Your task to perform on an android device: turn smart compose on in the gmail app Image 0: 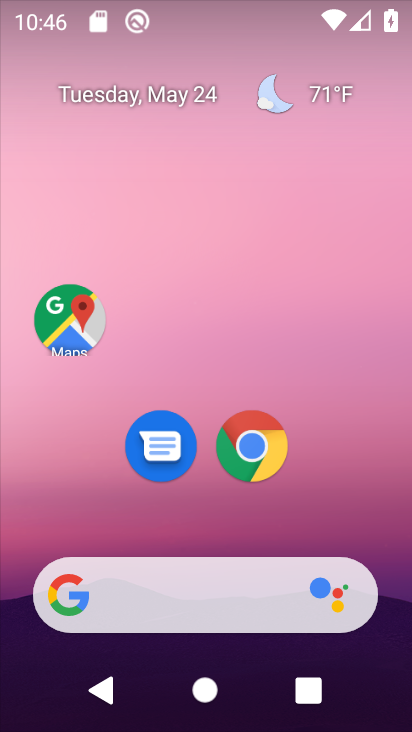
Step 0: drag from (240, 529) to (218, 165)
Your task to perform on an android device: turn smart compose on in the gmail app Image 1: 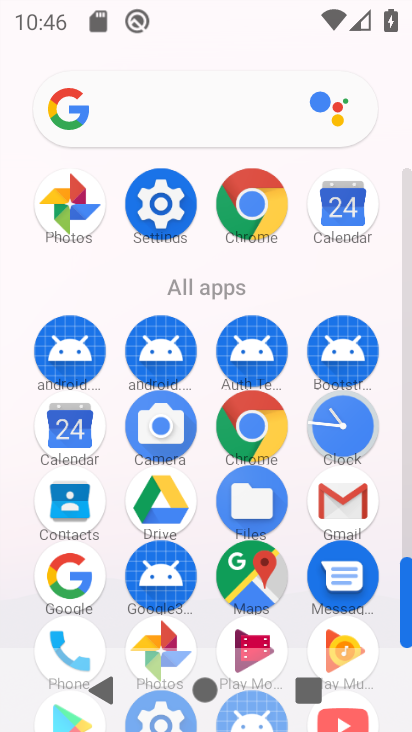
Step 1: click (335, 504)
Your task to perform on an android device: turn smart compose on in the gmail app Image 2: 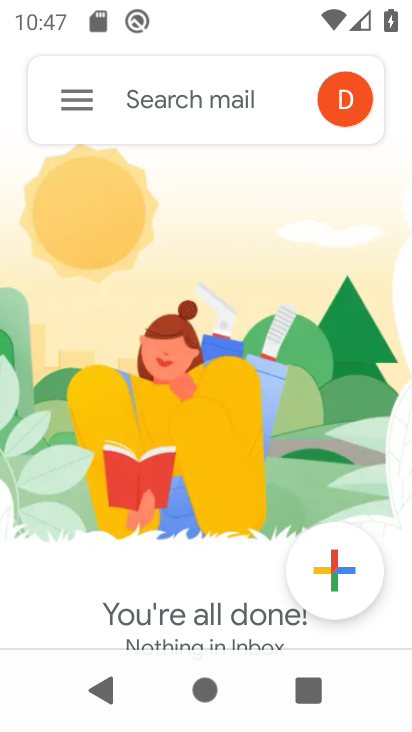
Step 2: click (54, 108)
Your task to perform on an android device: turn smart compose on in the gmail app Image 3: 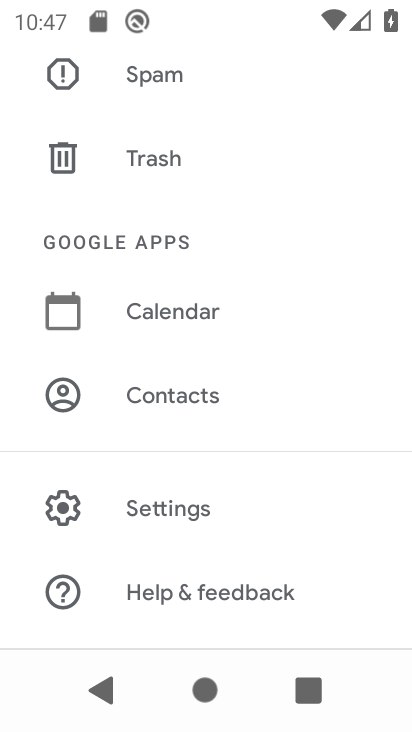
Step 3: click (218, 520)
Your task to perform on an android device: turn smart compose on in the gmail app Image 4: 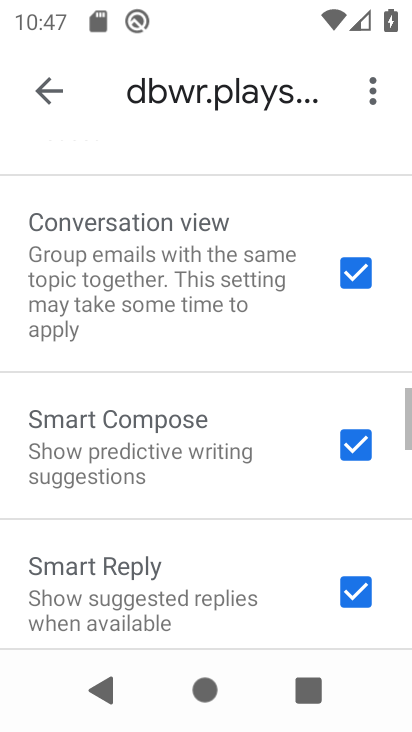
Step 4: task complete